Your task to perform on an android device: See recent photos Image 0: 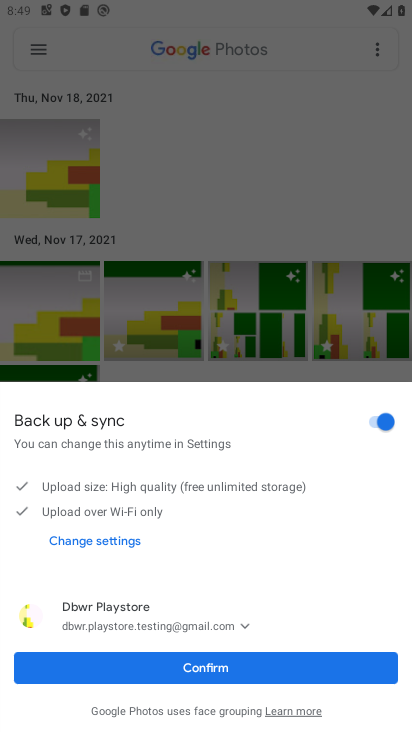
Step 0: click (215, 666)
Your task to perform on an android device: See recent photos Image 1: 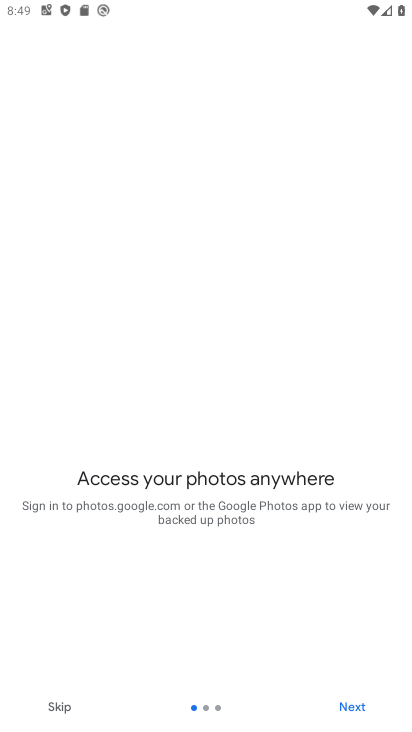
Step 1: click (356, 712)
Your task to perform on an android device: See recent photos Image 2: 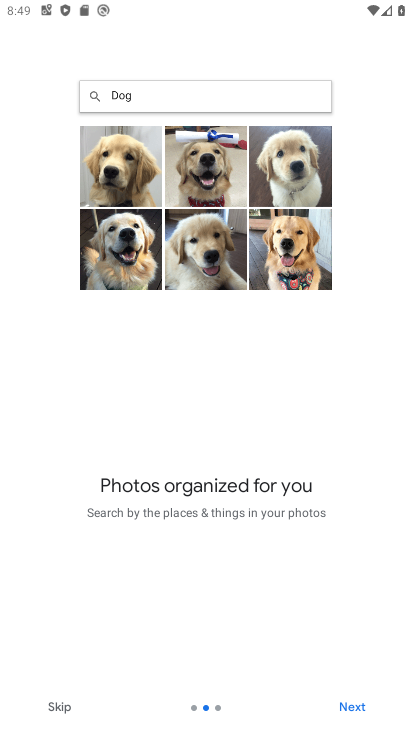
Step 2: click (357, 709)
Your task to perform on an android device: See recent photos Image 3: 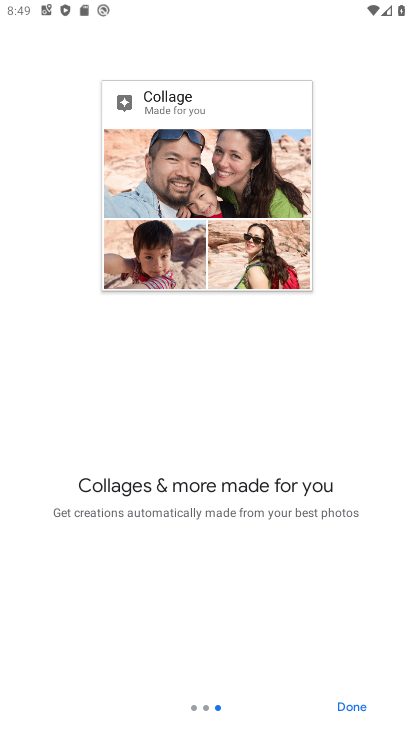
Step 3: click (358, 709)
Your task to perform on an android device: See recent photos Image 4: 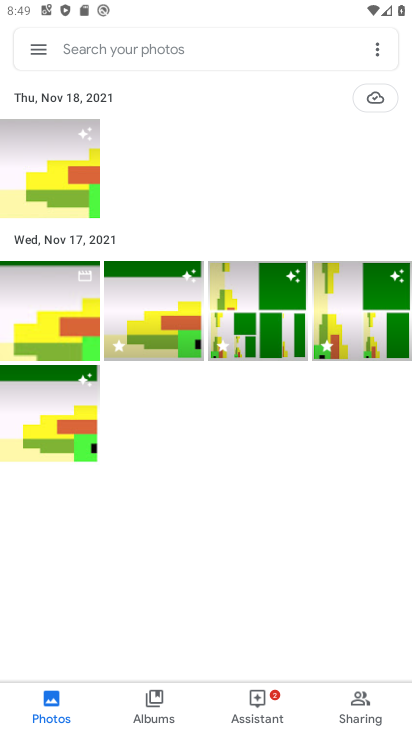
Step 4: task complete